Your task to perform on an android device: Open the phone app and click the voicemail tab. Image 0: 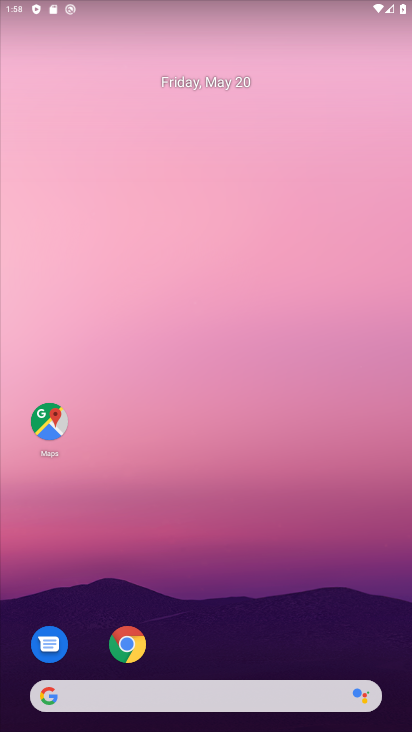
Step 0: drag from (212, 652) to (316, 158)
Your task to perform on an android device: Open the phone app and click the voicemail tab. Image 1: 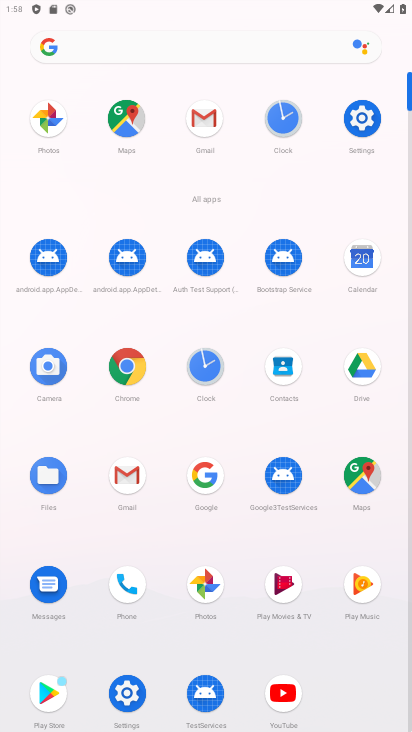
Step 1: click (123, 598)
Your task to perform on an android device: Open the phone app and click the voicemail tab. Image 2: 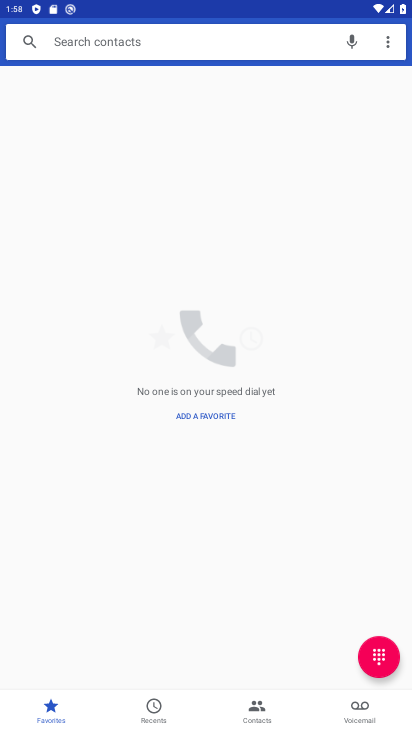
Step 2: click (348, 703)
Your task to perform on an android device: Open the phone app and click the voicemail tab. Image 3: 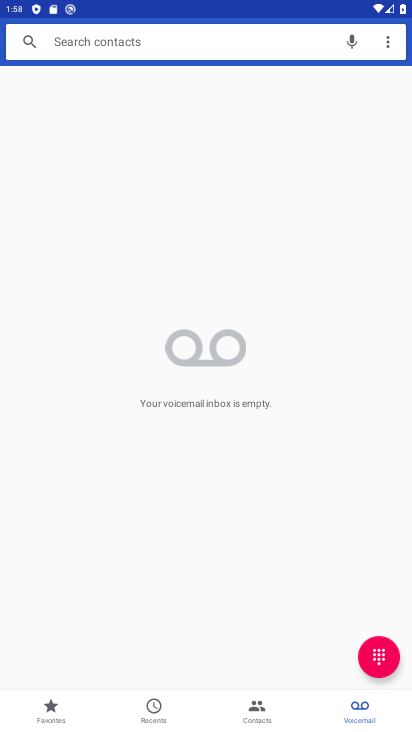
Step 3: task complete